Your task to perform on an android device: check android version Image 0: 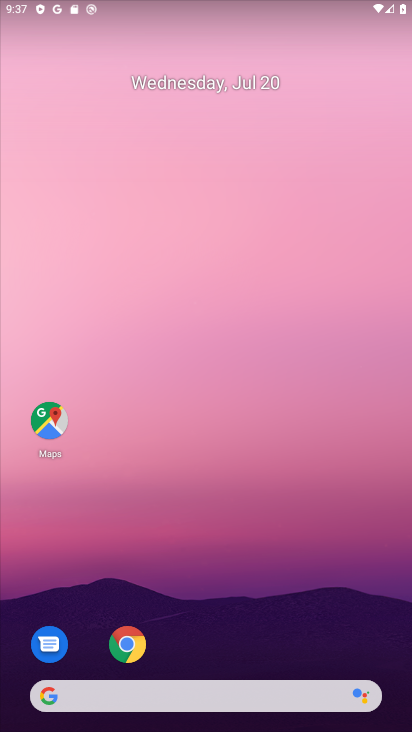
Step 0: drag from (219, 557) to (209, 72)
Your task to perform on an android device: check android version Image 1: 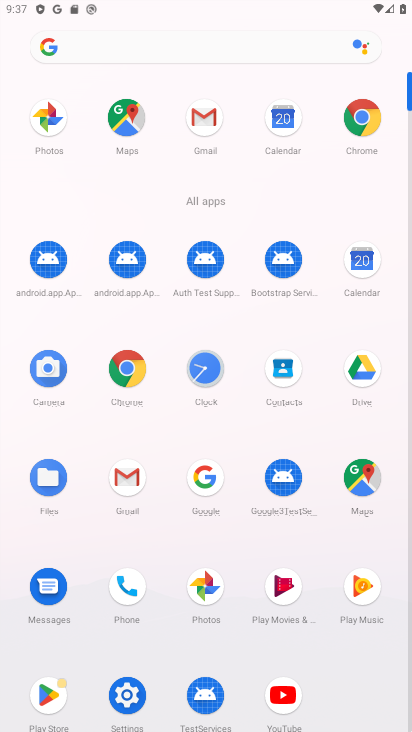
Step 1: click (137, 694)
Your task to perform on an android device: check android version Image 2: 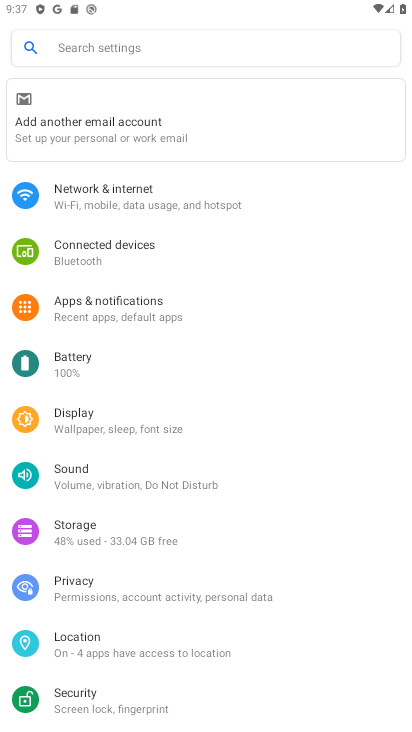
Step 2: drag from (227, 626) to (221, 241)
Your task to perform on an android device: check android version Image 3: 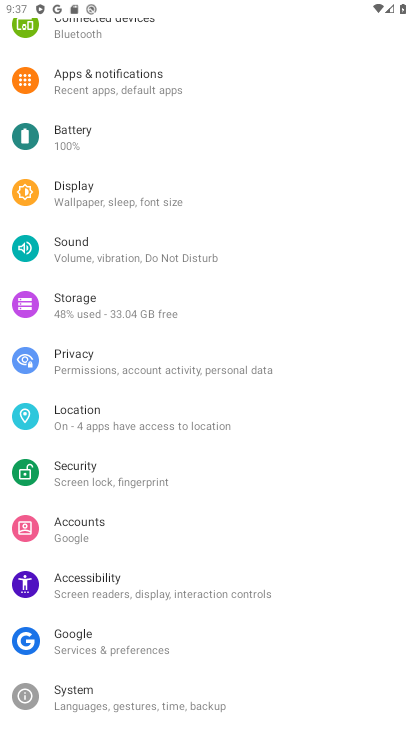
Step 3: drag from (254, 655) to (252, 248)
Your task to perform on an android device: check android version Image 4: 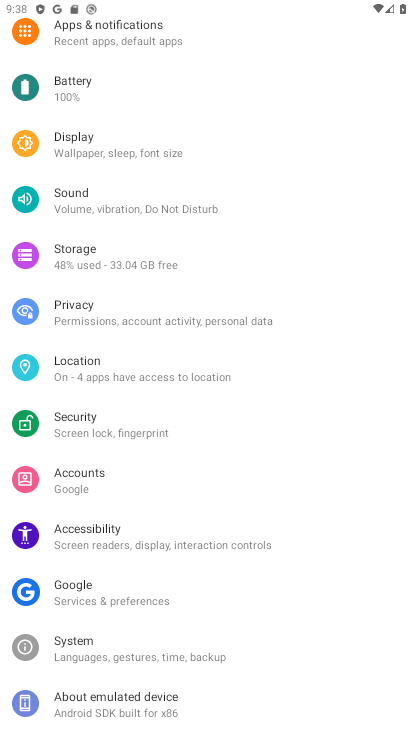
Step 4: click (97, 699)
Your task to perform on an android device: check android version Image 5: 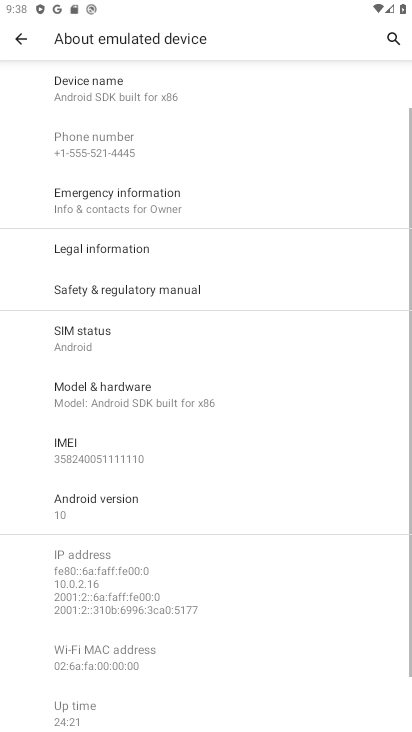
Step 5: task complete